Your task to perform on an android device: Open location settings Image 0: 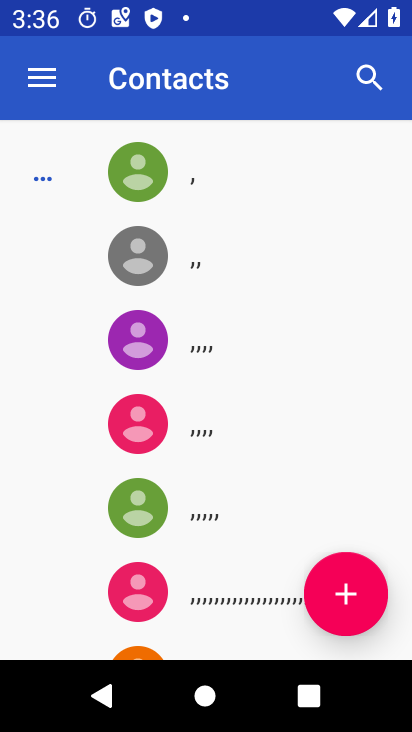
Step 0: press home button
Your task to perform on an android device: Open location settings Image 1: 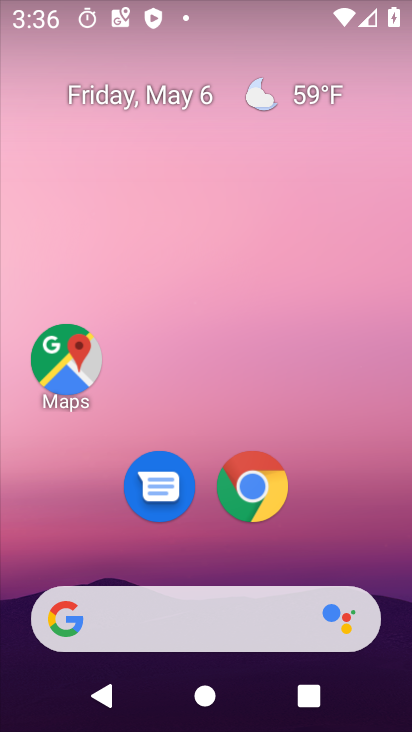
Step 1: drag from (318, 469) to (207, 74)
Your task to perform on an android device: Open location settings Image 2: 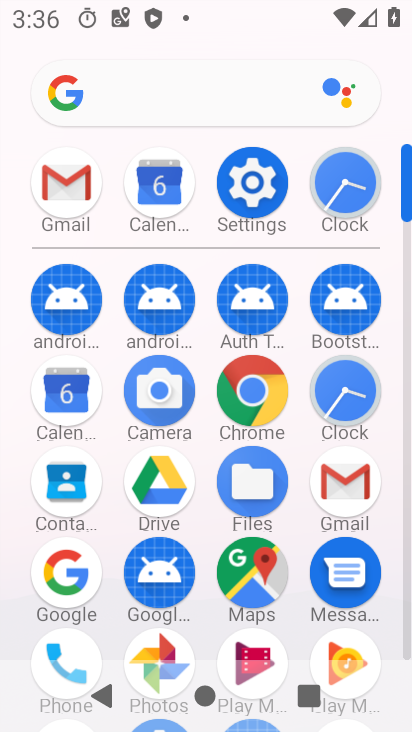
Step 2: click (251, 179)
Your task to perform on an android device: Open location settings Image 3: 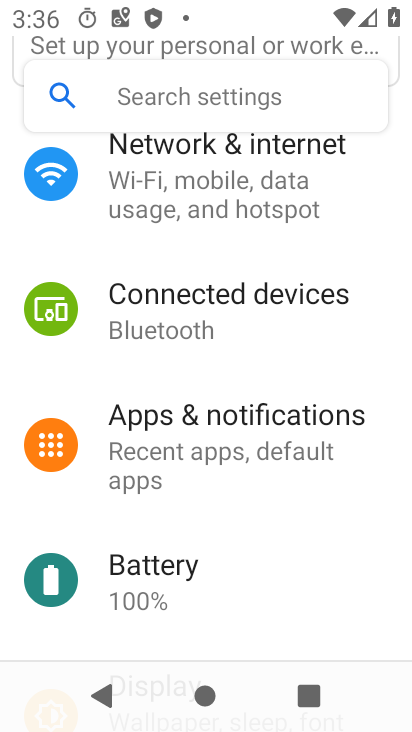
Step 3: drag from (270, 495) to (217, 228)
Your task to perform on an android device: Open location settings Image 4: 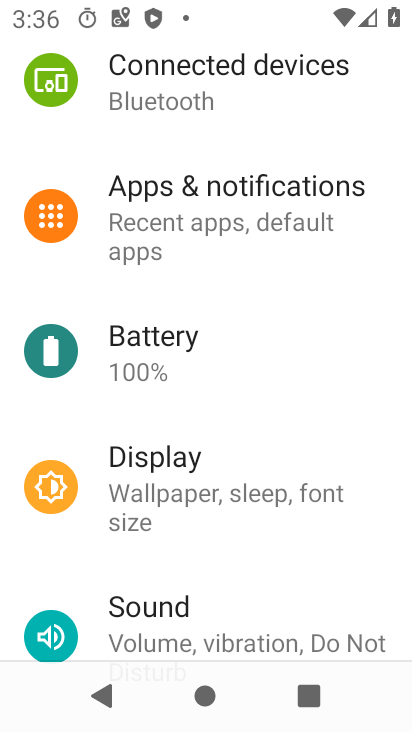
Step 4: drag from (219, 542) to (163, 235)
Your task to perform on an android device: Open location settings Image 5: 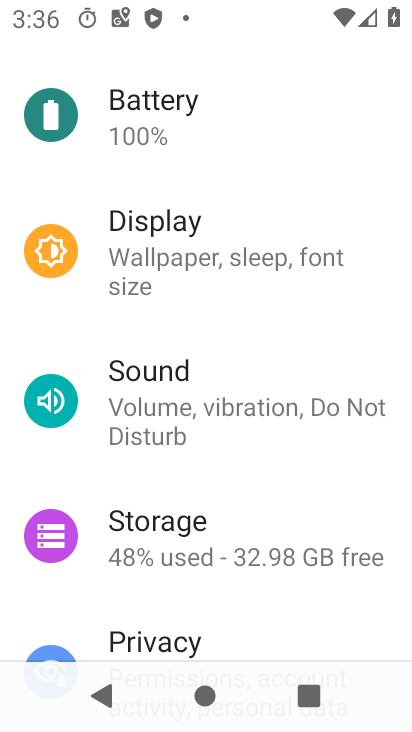
Step 5: drag from (212, 465) to (187, 198)
Your task to perform on an android device: Open location settings Image 6: 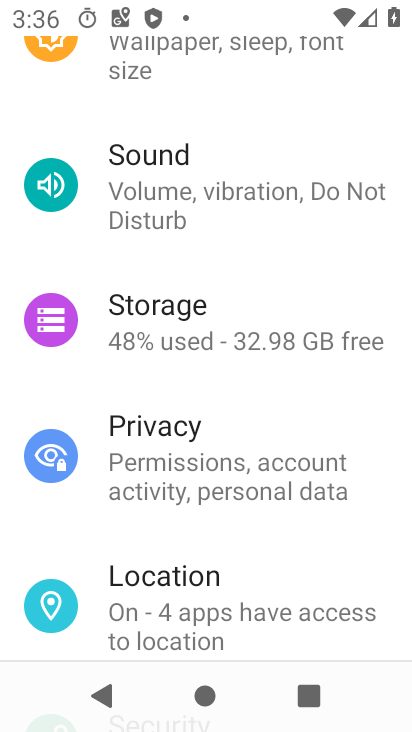
Step 6: click (162, 578)
Your task to perform on an android device: Open location settings Image 7: 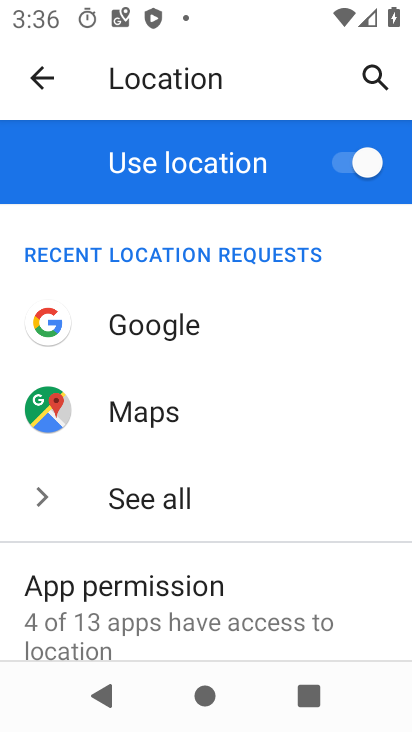
Step 7: task complete